Your task to perform on an android device: What's on my calendar tomorrow? Image 0: 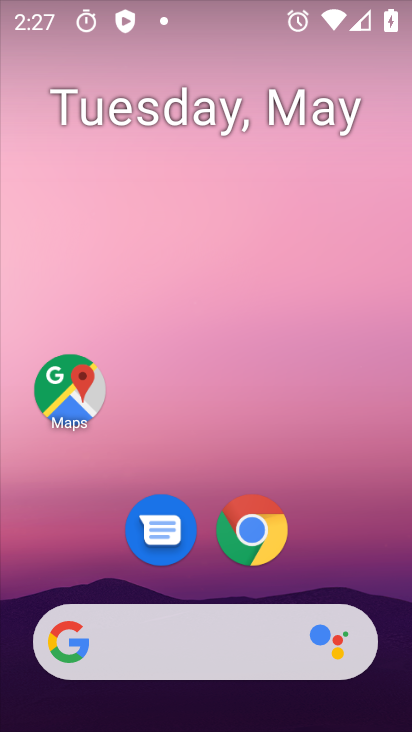
Step 0: drag from (222, 584) to (153, 86)
Your task to perform on an android device: What's on my calendar tomorrow? Image 1: 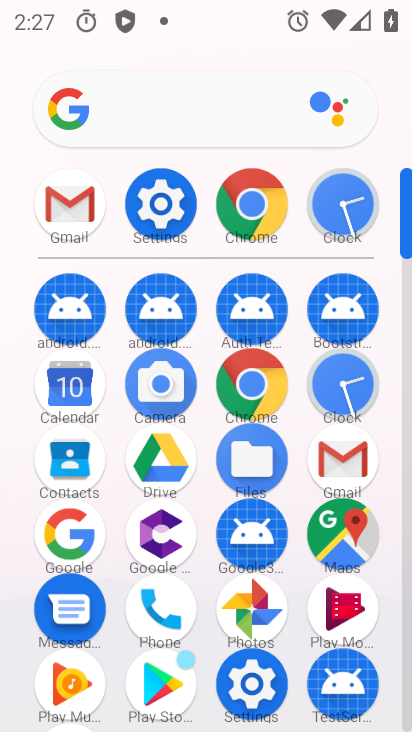
Step 1: click (51, 380)
Your task to perform on an android device: What's on my calendar tomorrow? Image 2: 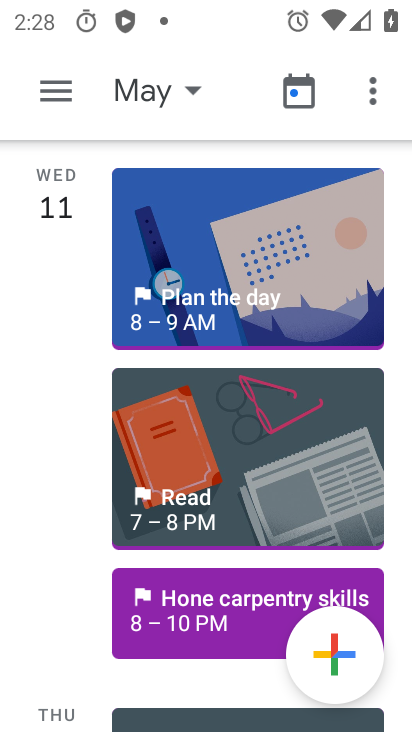
Step 2: click (44, 90)
Your task to perform on an android device: What's on my calendar tomorrow? Image 3: 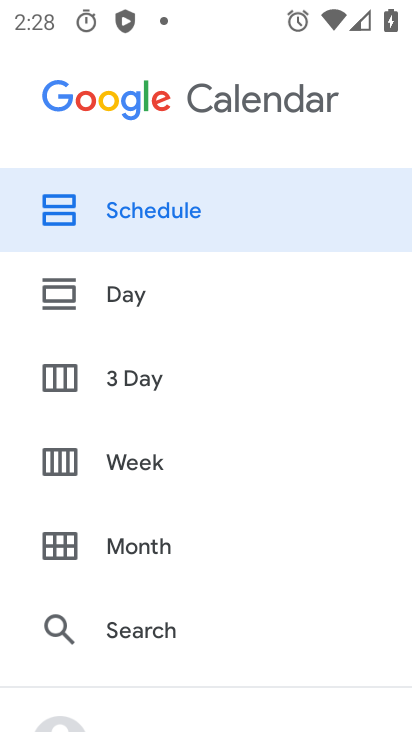
Step 3: click (152, 452)
Your task to perform on an android device: What's on my calendar tomorrow? Image 4: 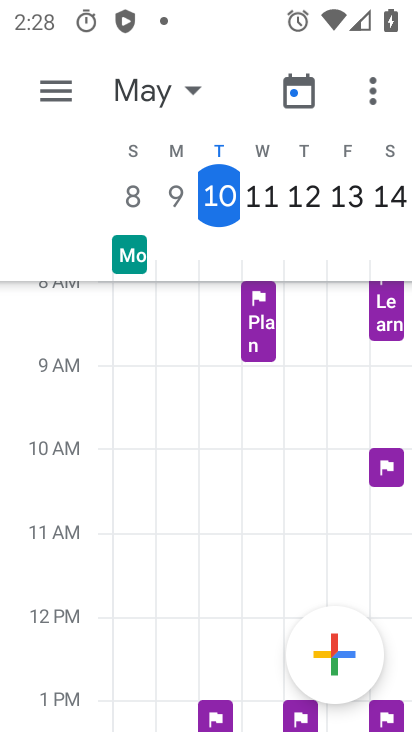
Step 4: click (249, 199)
Your task to perform on an android device: What's on my calendar tomorrow? Image 5: 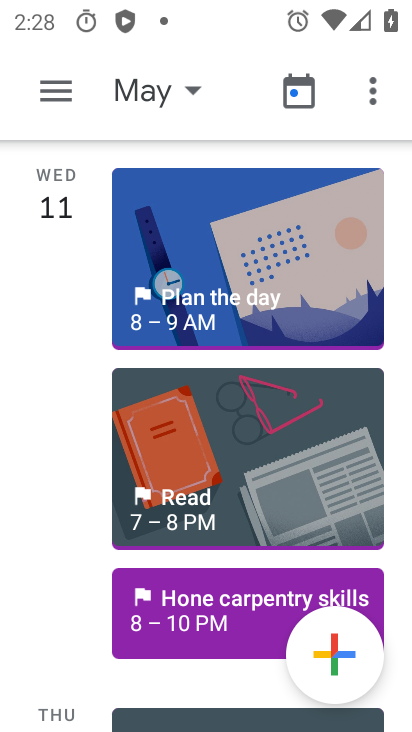
Step 5: task complete